Your task to perform on an android device: Open calendar and show me the first week of next month Image 0: 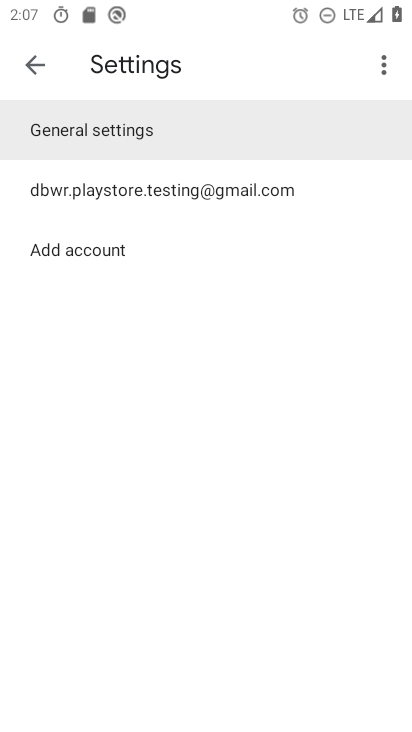
Step 0: press home button
Your task to perform on an android device: Open calendar and show me the first week of next month Image 1: 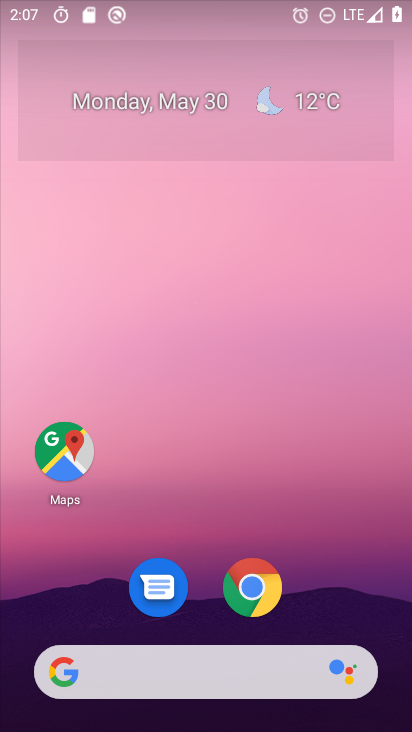
Step 1: drag from (298, 501) to (329, 29)
Your task to perform on an android device: Open calendar and show me the first week of next month Image 2: 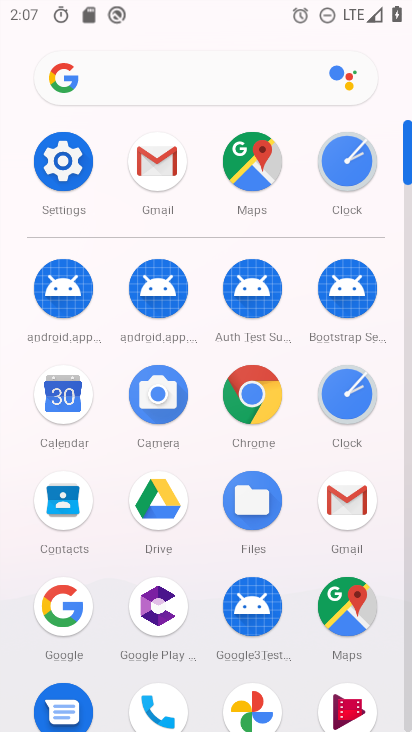
Step 2: click (70, 382)
Your task to perform on an android device: Open calendar and show me the first week of next month Image 3: 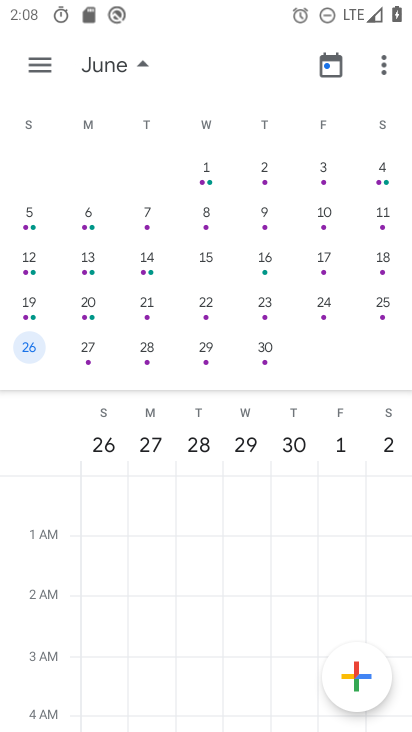
Step 3: click (27, 205)
Your task to perform on an android device: Open calendar and show me the first week of next month Image 4: 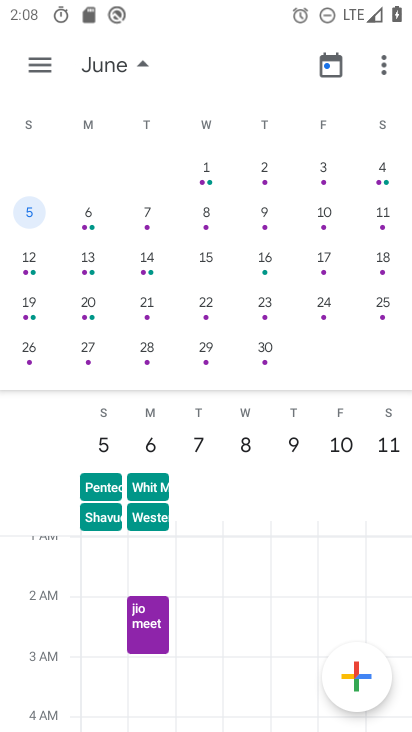
Step 4: task complete